Your task to perform on an android device: Open wifi settings Image 0: 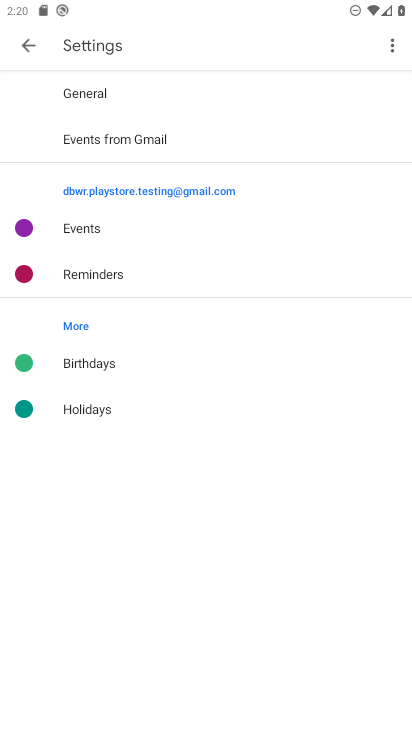
Step 0: press home button
Your task to perform on an android device: Open wifi settings Image 1: 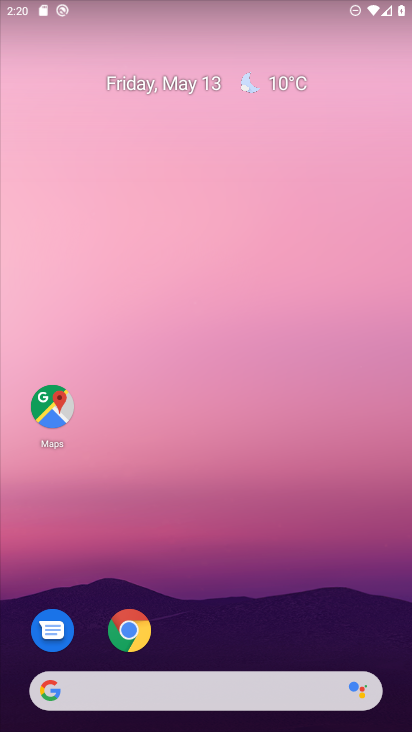
Step 1: drag from (225, 647) to (240, 67)
Your task to perform on an android device: Open wifi settings Image 2: 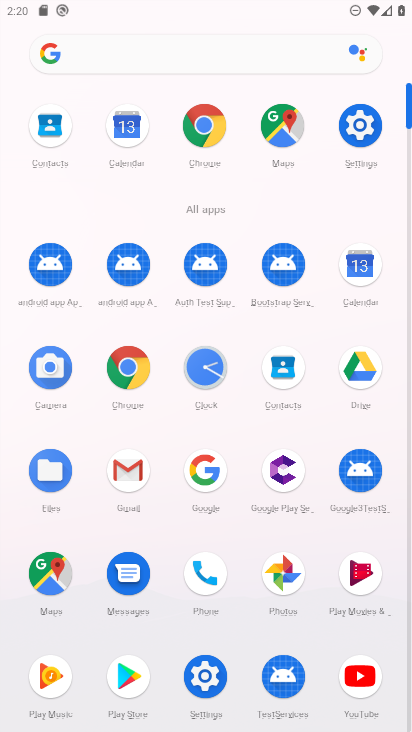
Step 2: click (361, 126)
Your task to perform on an android device: Open wifi settings Image 3: 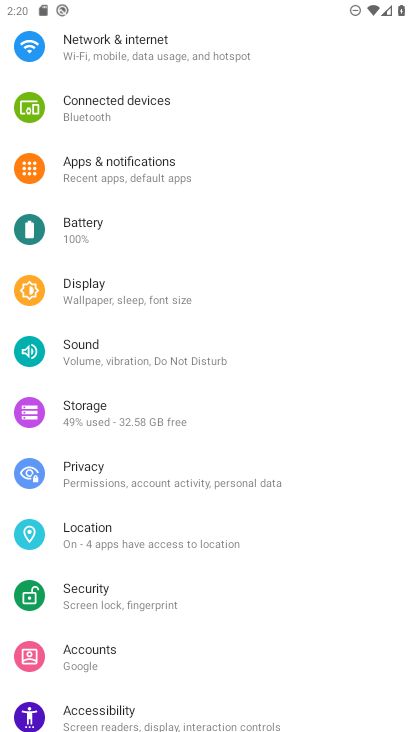
Step 3: drag from (171, 127) to (185, 651)
Your task to perform on an android device: Open wifi settings Image 4: 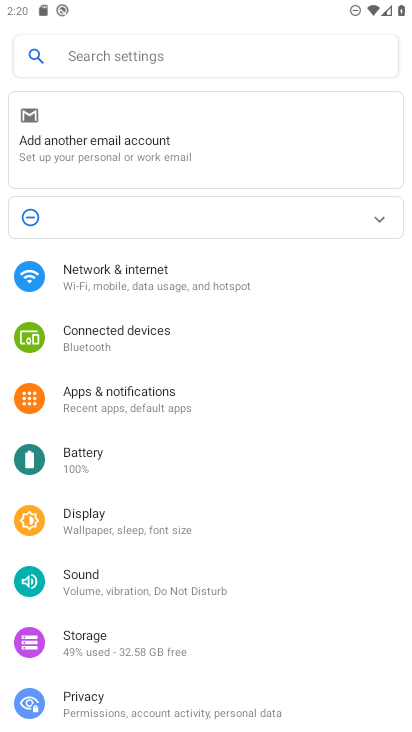
Step 4: click (176, 270)
Your task to perform on an android device: Open wifi settings Image 5: 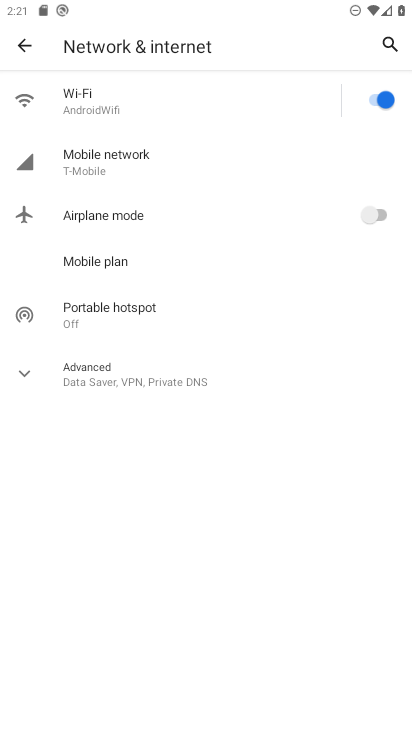
Step 5: click (97, 102)
Your task to perform on an android device: Open wifi settings Image 6: 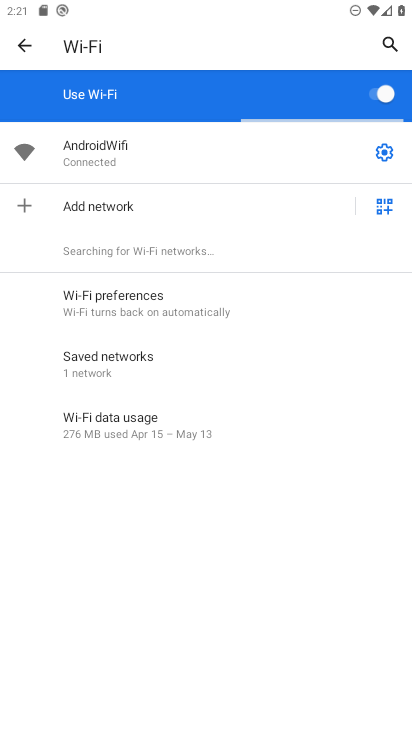
Step 6: task complete